Your task to perform on an android device: Search for seafood restaurants on Google Maps Image 0: 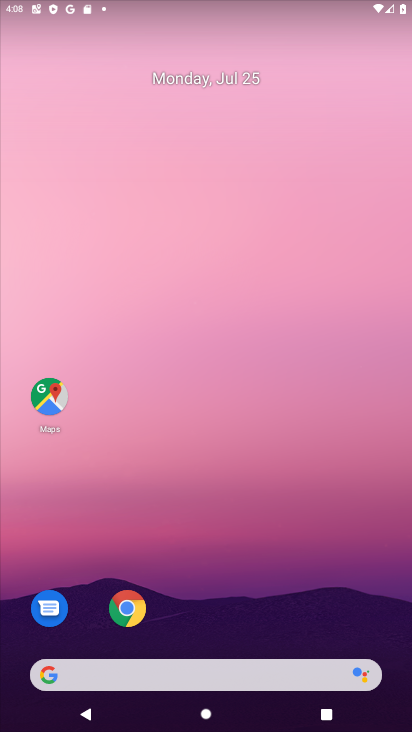
Step 0: press home button
Your task to perform on an android device: Search for seafood restaurants on Google Maps Image 1: 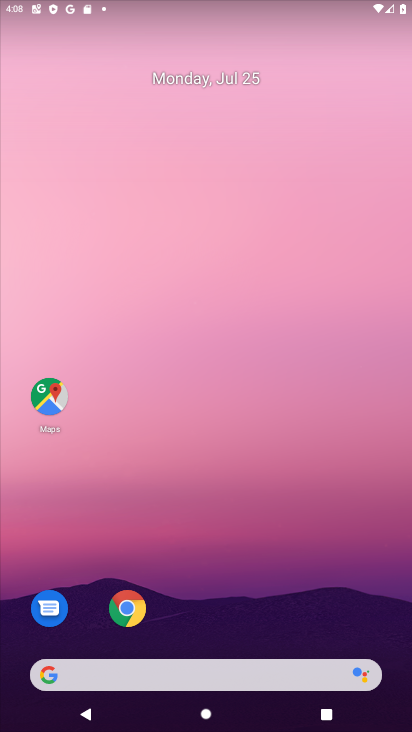
Step 1: click (48, 392)
Your task to perform on an android device: Search for seafood restaurants on Google Maps Image 2: 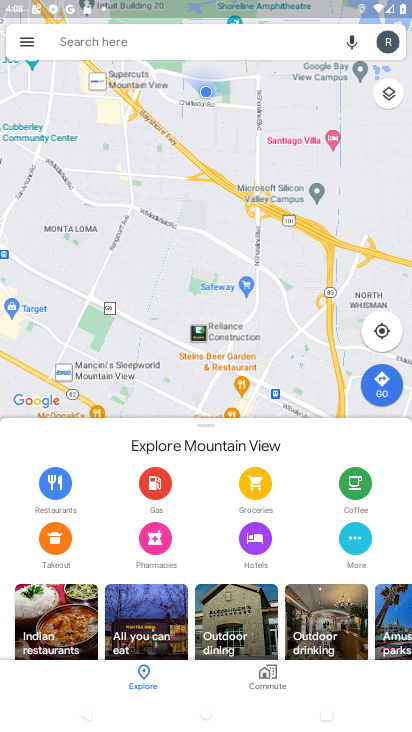
Step 2: click (98, 39)
Your task to perform on an android device: Search for seafood restaurants on Google Maps Image 3: 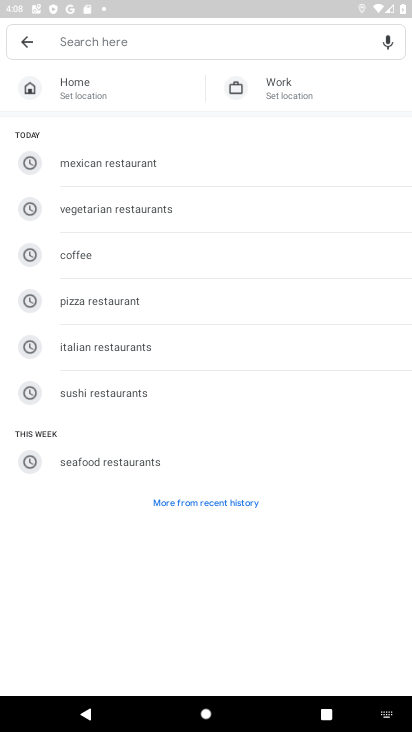
Step 3: click (93, 461)
Your task to perform on an android device: Search for seafood restaurants on Google Maps Image 4: 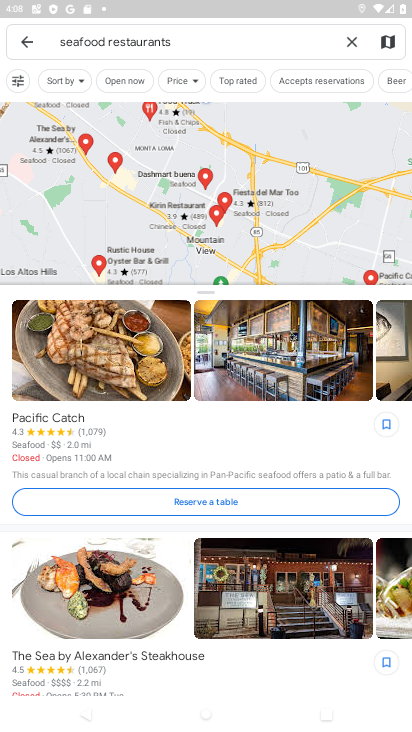
Step 4: task complete